Your task to perform on an android device: turn on translation in the chrome app Image 0: 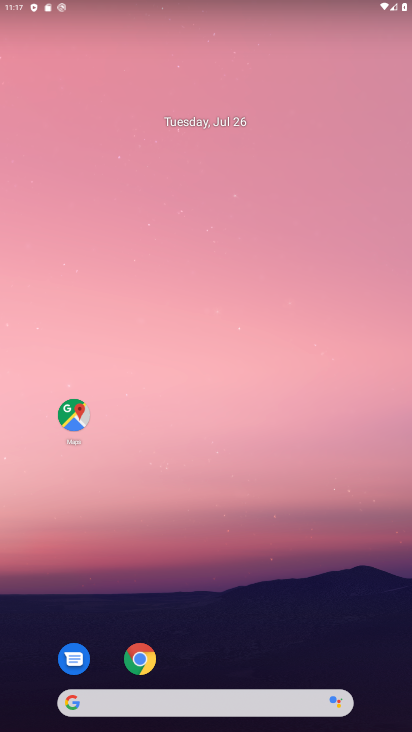
Step 0: drag from (269, 371) to (305, 130)
Your task to perform on an android device: turn on translation in the chrome app Image 1: 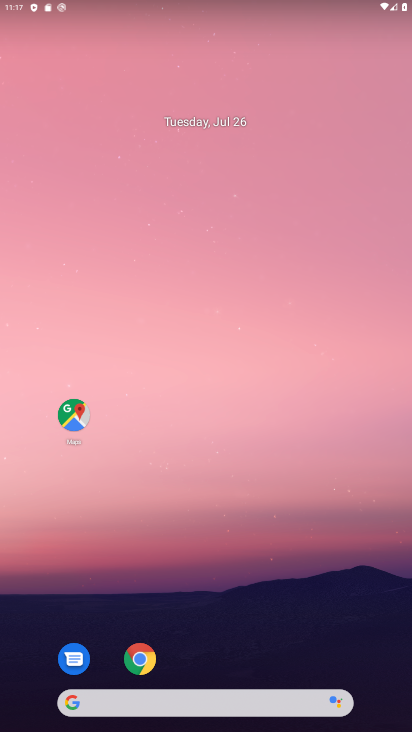
Step 1: drag from (234, 659) to (294, 114)
Your task to perform on an android device: turn on translation in the chrome app Image 2: 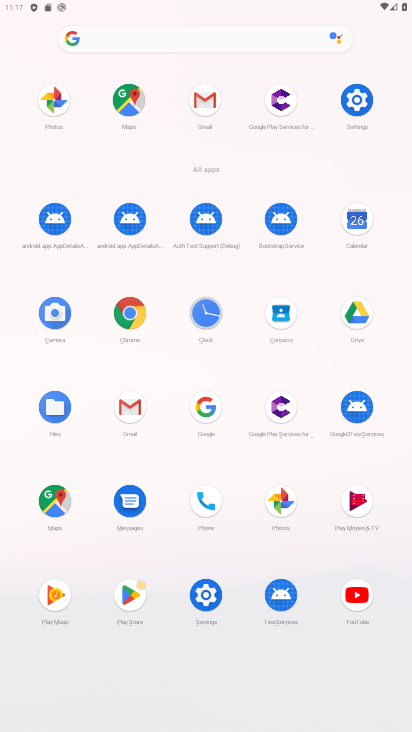
Step 2: click (133, 324)
Your task to perform on an android device: turn on translation in the chrome app Image 3: 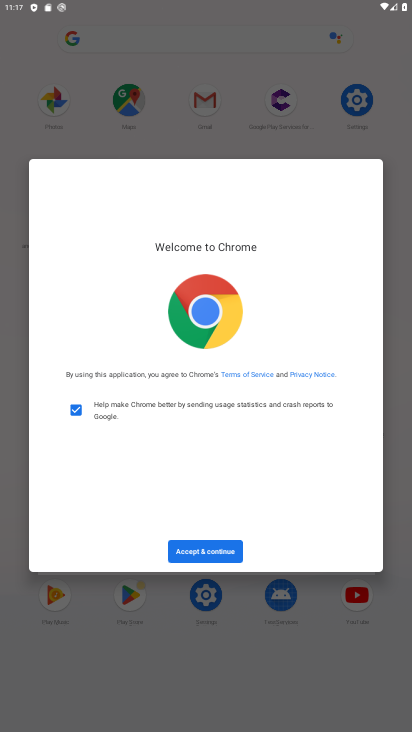
Step 3: click (210, 552)
Your task to perform on an android device: turn on translation in the chrome app Image 4: 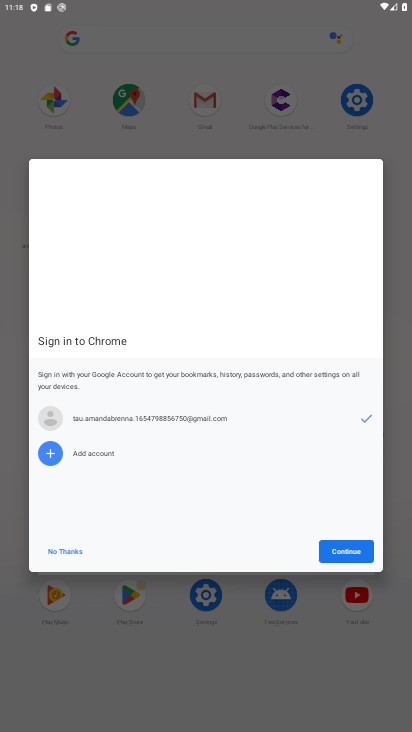
Step 4: click (357, 550)
Your task to perform on an android device: turn on translation in the chrome app Image 5: 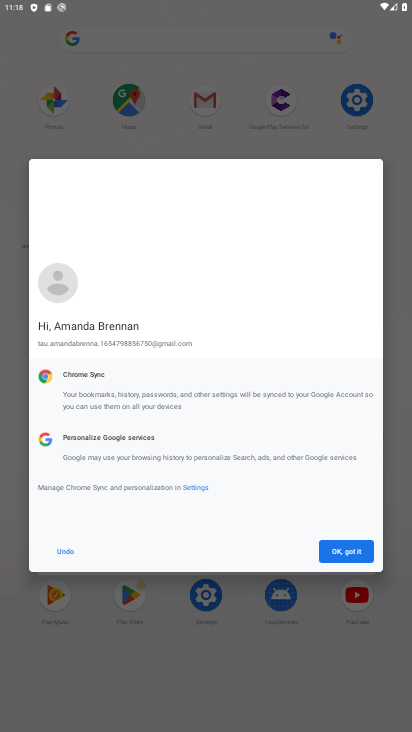
Step 5: click (347, 556)
Your task to perform on an android device: turn on translation in the chrome app Image 6: 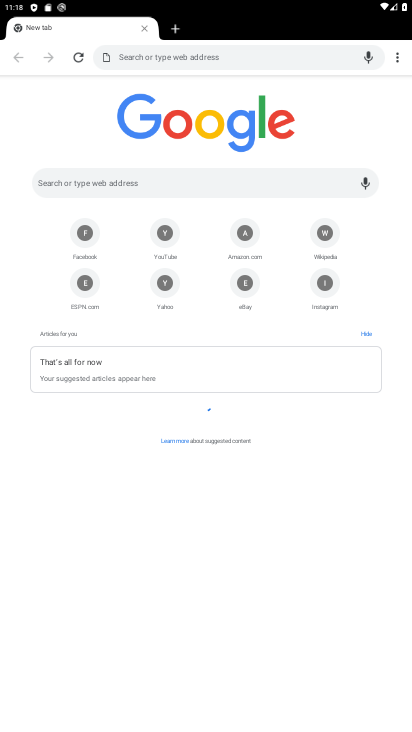
Step 6: click (396, 63)
Your task to perform on an android device: turn on translation in the chrome app Image 7: 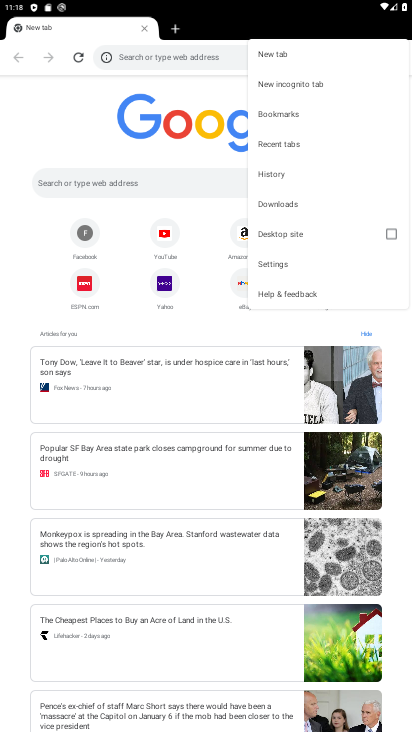
Step 7: task complete